Your task to perform on an android device: Open Yahoo.com Image 0: 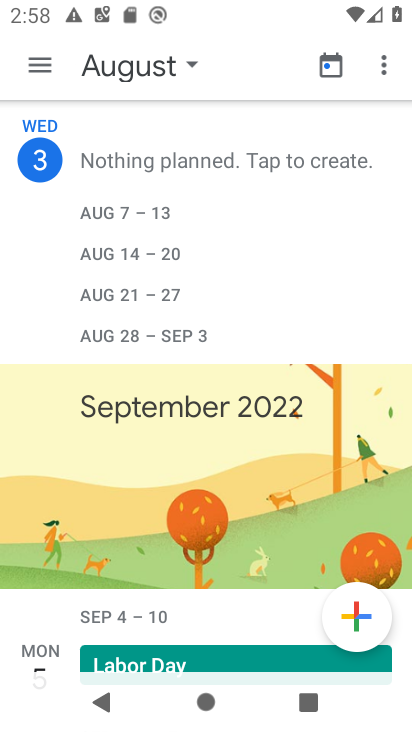
Step 0: press home button
Your task to perform on an android device: Open Yahoo.com Image 1: 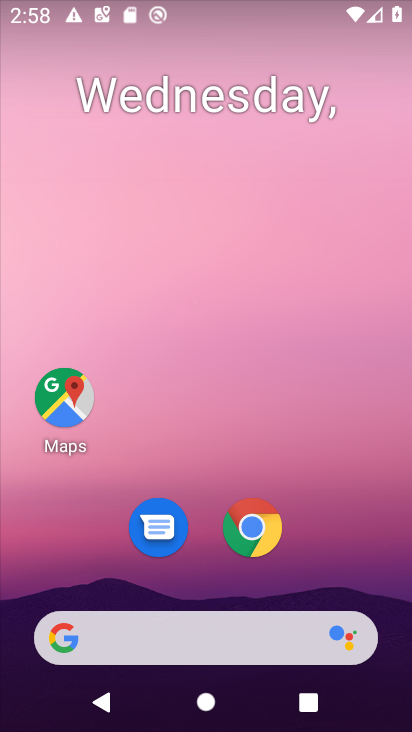
Step 1: drag from (201, 565) to (200, 67)
Your task to perform on an android device: Open Yahoo.com Image 2: 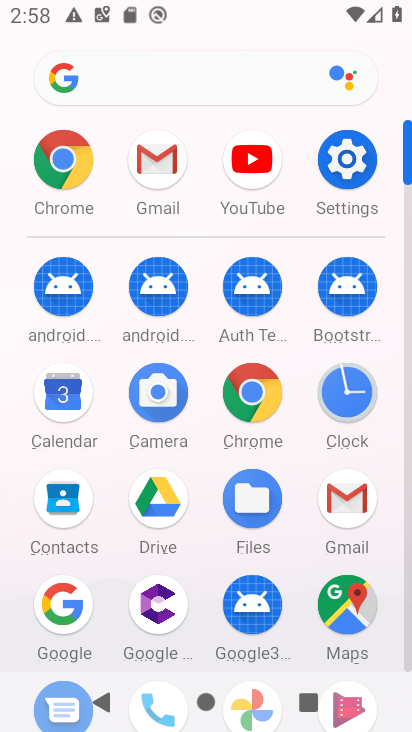
Step 2: click (254, 384)
Your task to perform on an android device: Open Yahoo.com Image 3: 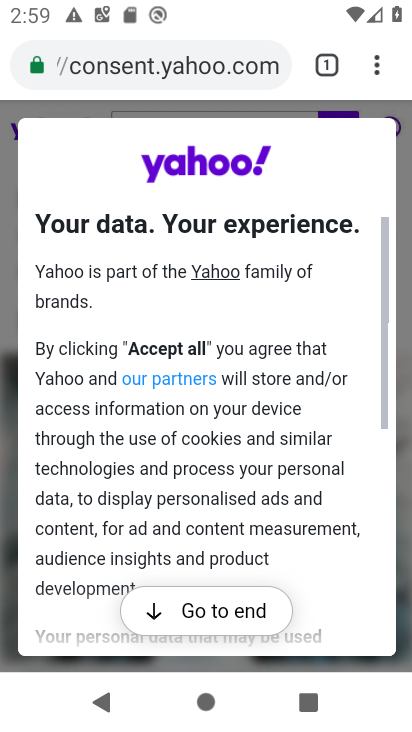
Step 3: task complete